Your task to perform on an android device: manage bookmarks in the chrome app Image 0: 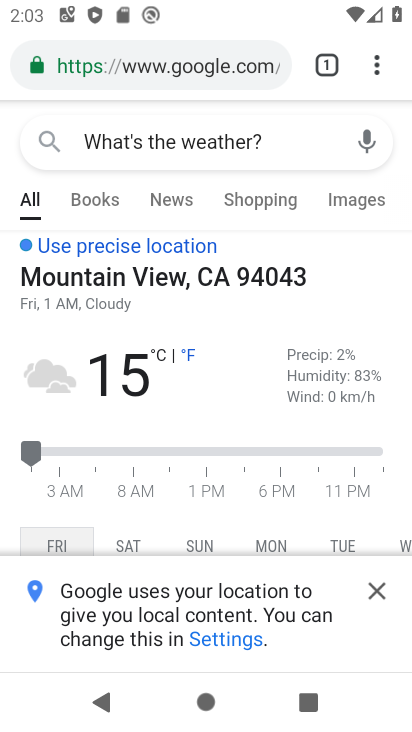
Step 0: press home button
Your task to perform on an android device: manage bookmarks in the chrome app Image 1: 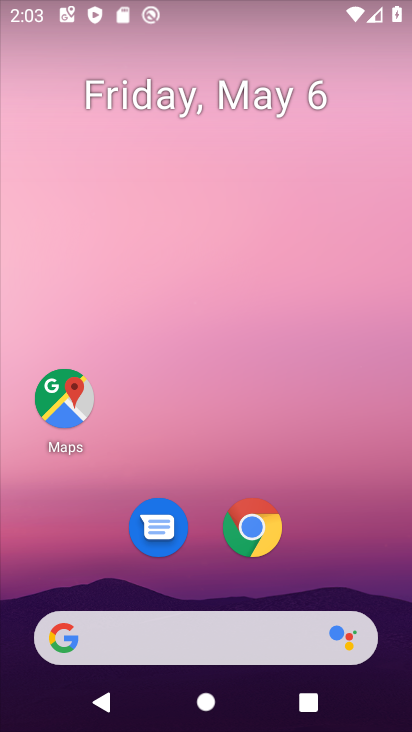
Step 1: click (301, 549)
Your task to perform on an android device: manage bookmarks in the chrome app Image 2: 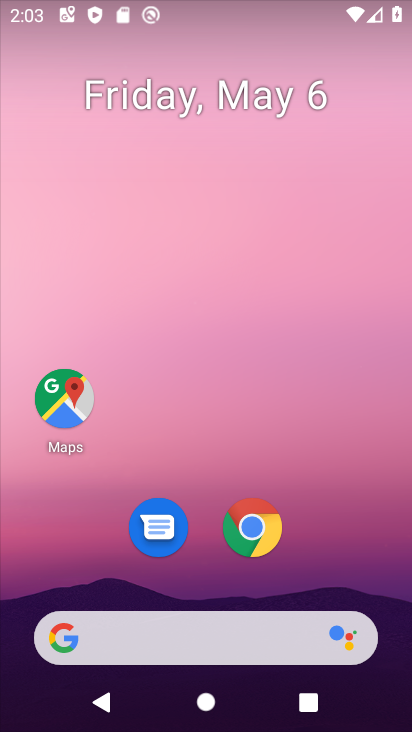
Step 2: click (250, 544)
Your task to perform on an android device: manage bookmarks in the chrome app Image 3: 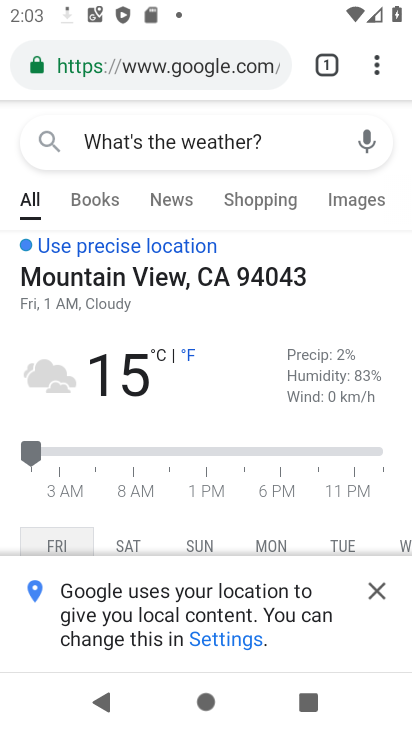
Step 3: drag from (376, 54) to (160, 248)
Your task to perform on an android device: manage bookmarks in the chrome app Image 4: 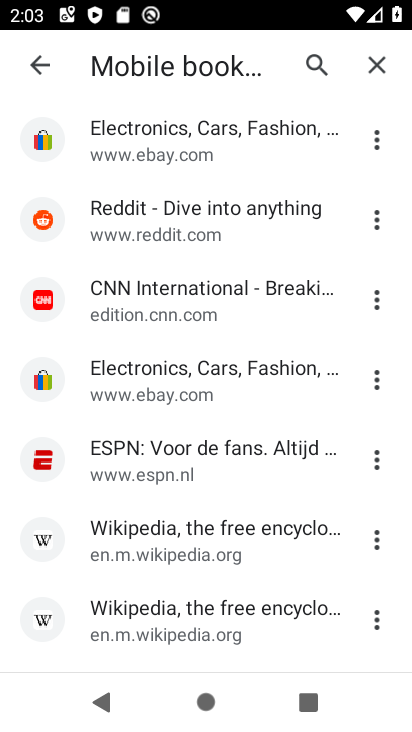
Step 4: drag from (227, 541) to (248, 239)
Your task to perform on an android device: manage bookmarks in the chrome app Image 5: 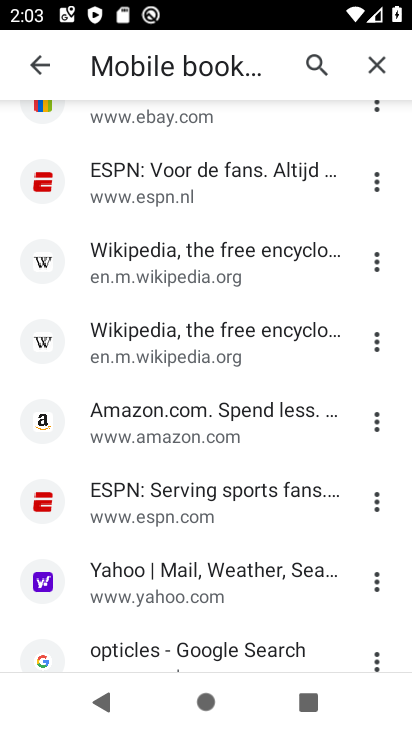
Step 5: click (140, 590)
Your task to perform on an android device: manage bookmarks in the chrome app Image 6: 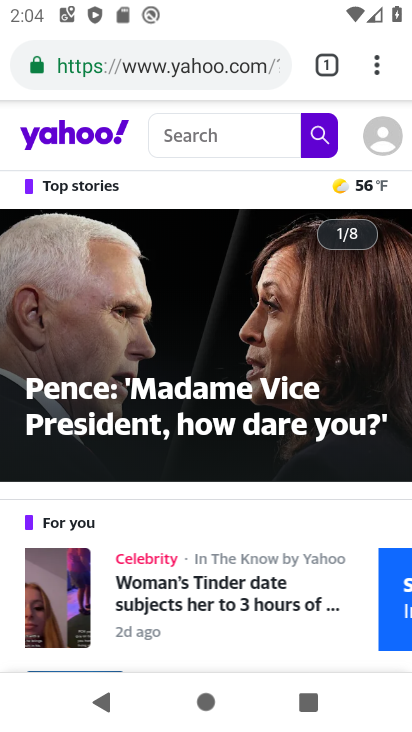
Step 6: task complete